Your task to perform on an android device: allow cookies in the chrome app Image 0: 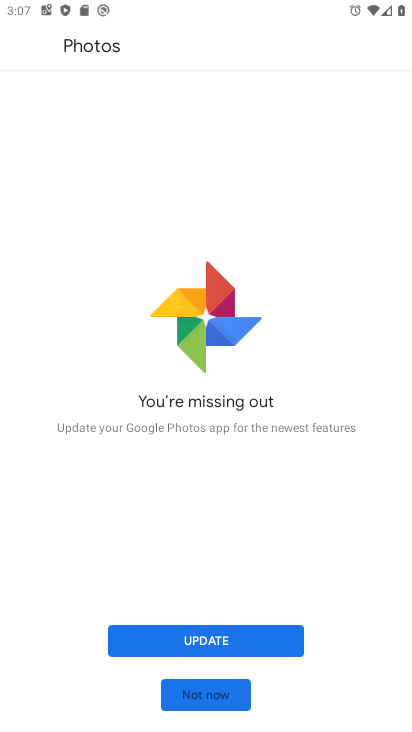
Step 0: press home button
Your task to perform on an android device: allow cookies in the chrome app Image 1: 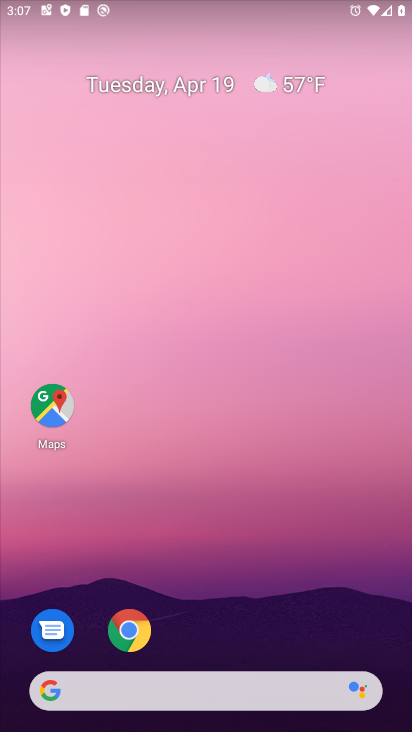
Step 1: click (133, 634)
Your task to perform on an android device: allow cookies in the chrome app Image 2: 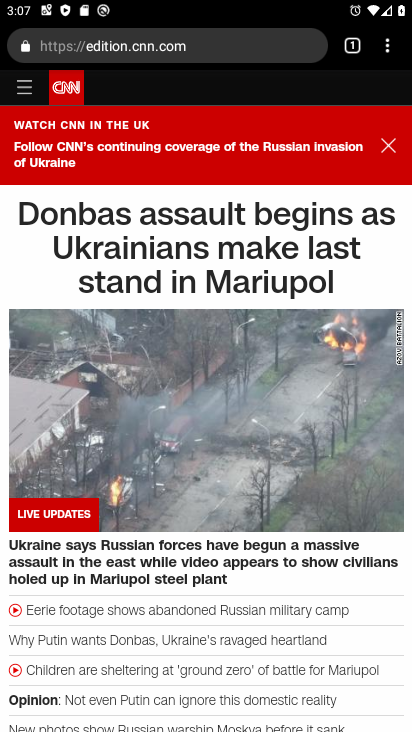
Step 2: click (388, 43)
Your task to perform on an android device: allow cookies in the chrome app Image 3: 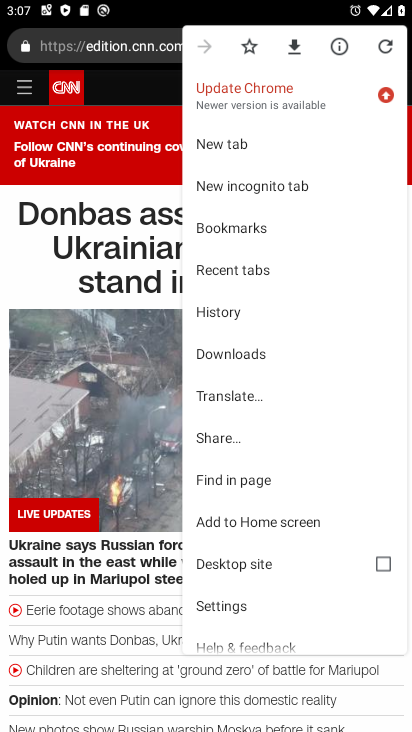
Step 3: click (213, 605)
Your task to perform on an android device: allow cookies in the chrome app Image 4: 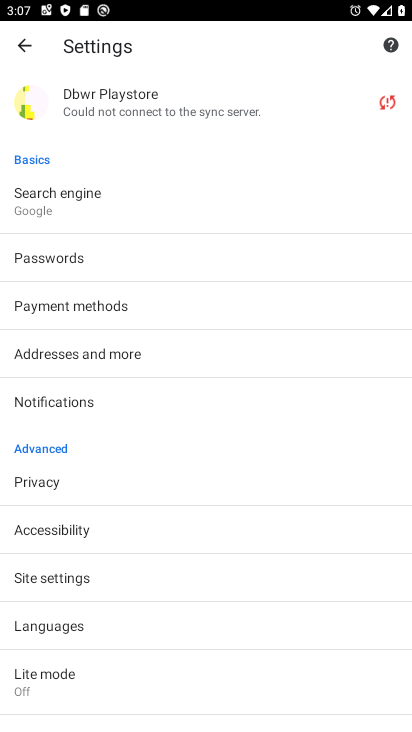
Step 4: click (77, 581)
Your task to perform on an android device: allow cookies in the chrome app Image 5: 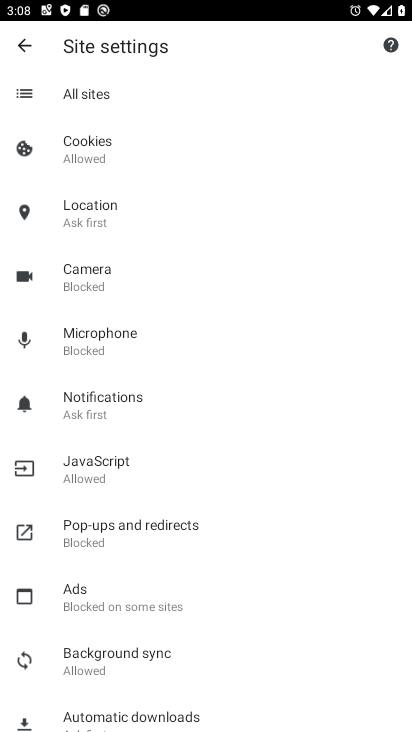
Step 5: drag from (2, 382) to (6, 99)
Your task to perform on an android device: allow cookies in the chrome app Image 6: 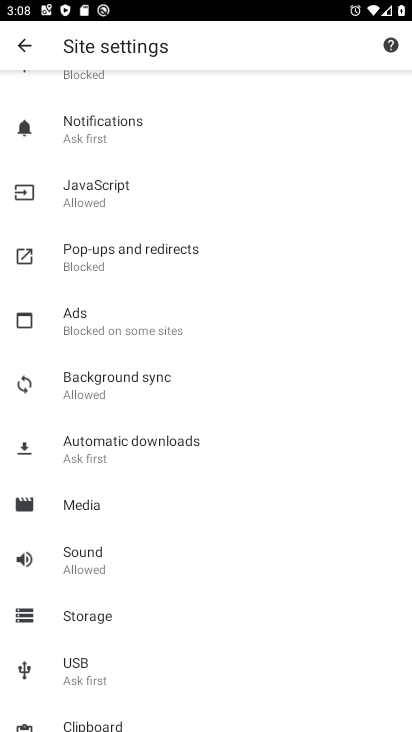
Step 6: drag from (116, 405) to (216, 215)
Your task to perform on an android device: allow cookies in the chrome app Image 7: 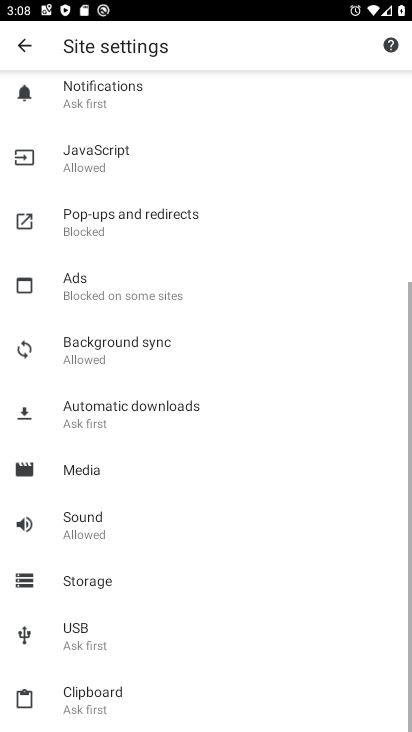
Step 7: click (70, 192)
Your task to perform on an android device: allow cookies in the chrome app Image 8: 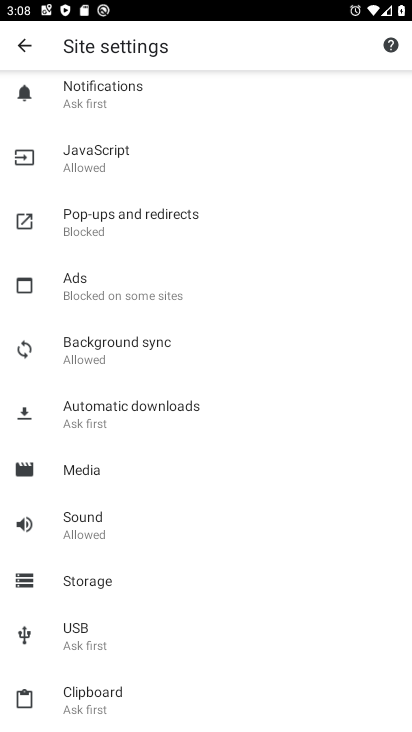
Step 8: drag from (220, 135) to (32, 731)
Your task to perform on an android device: allow cookies in the chrome app Image 9: 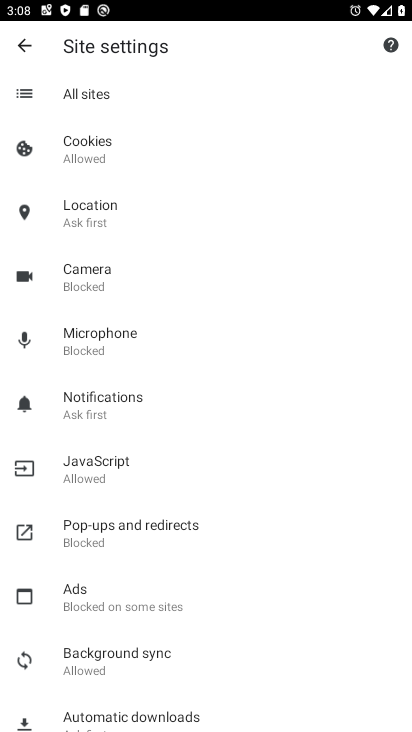
Step 9: click (86, 143)
Your task to perform on an android device: allow cookies in the chrome app Image 10: 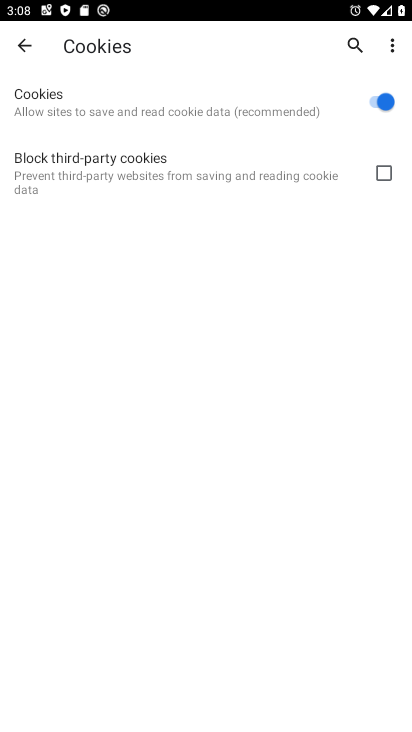
Step 10: task complete